Your task to perform on an android device: Set the phone to "Do not disturb". Image 0: 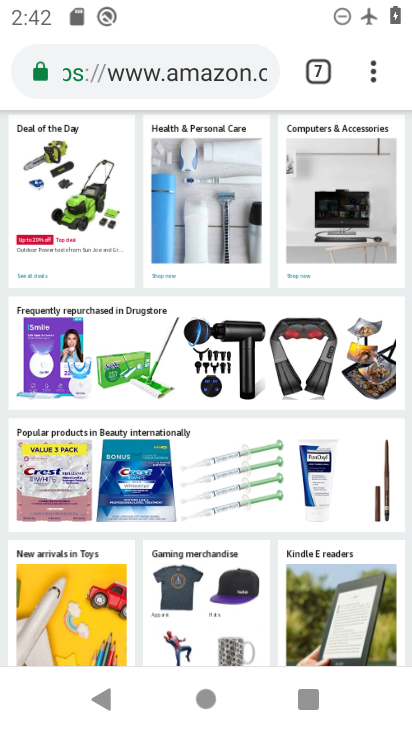
Step 0: press home button
Your task to perform on an android device: Set the phone to "Do not disturb". Image 1: 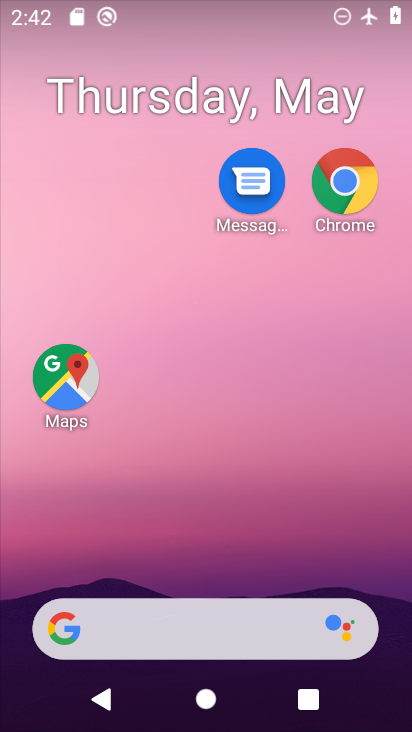
Step 1: drag from (276, 627) to (308, 117)
Your task to perform on an android device: Set the phone to "Do not disturb". Image 2: 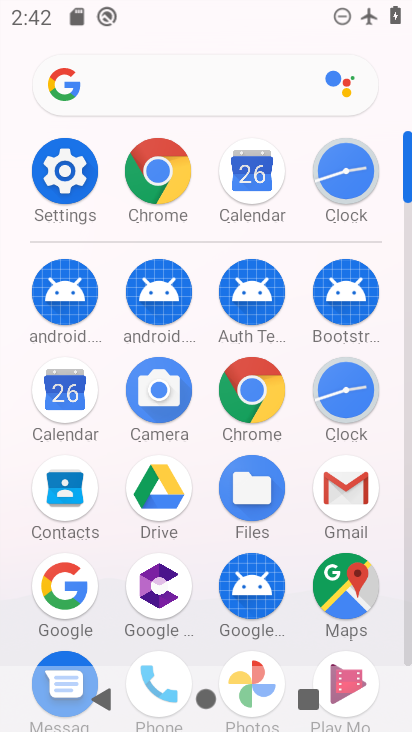
Step 2: click (45, 159)
Your task to perform on an android device: Set the phone to "Do not disturb". Image 3: 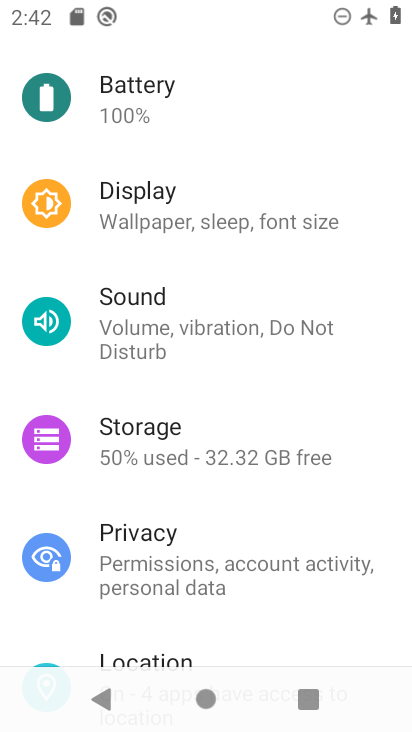
Step 3: click (156, 347)
Your task to perform on an android device: Set the phone to "Do not disturb". Image 4: 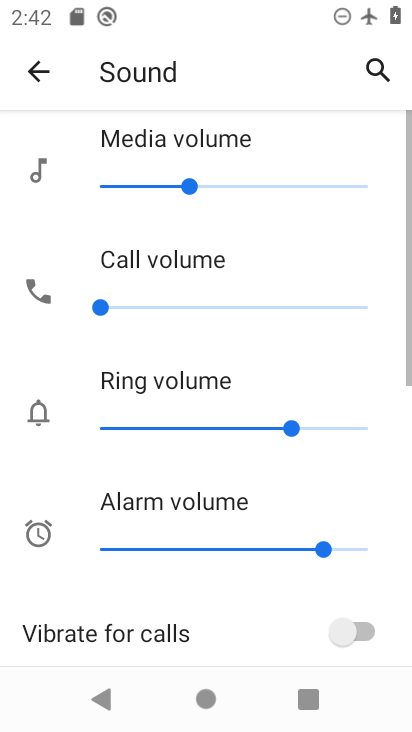
Step 4: drag from (213, 583) to (229, 73)
Your task to perform on an android device: Set the phone to "Do not disturb". Image 5: 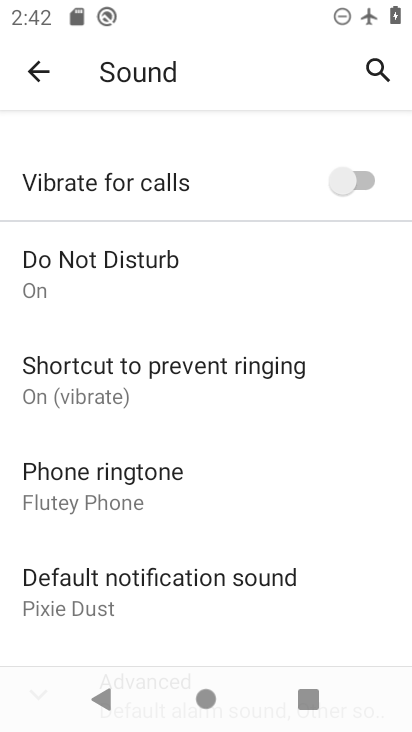
Step 5: click (147, 269)
Your task to perform on an android device: Set the phone to "Do not disturb". Image 6: 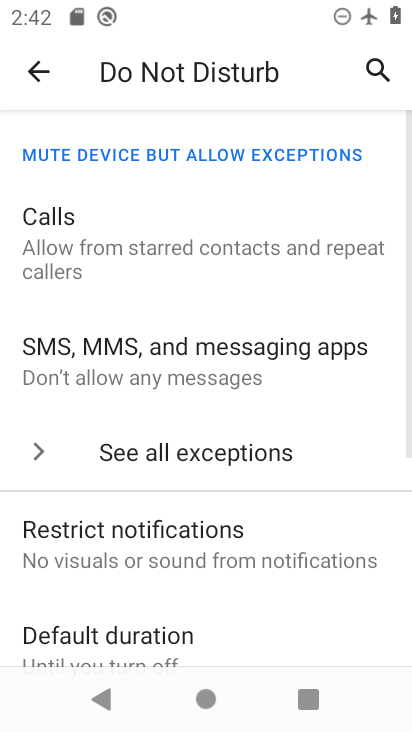
Step 6: task complete